Your task to perform on an android device: Go to calendar. Show me events next week Image 0: 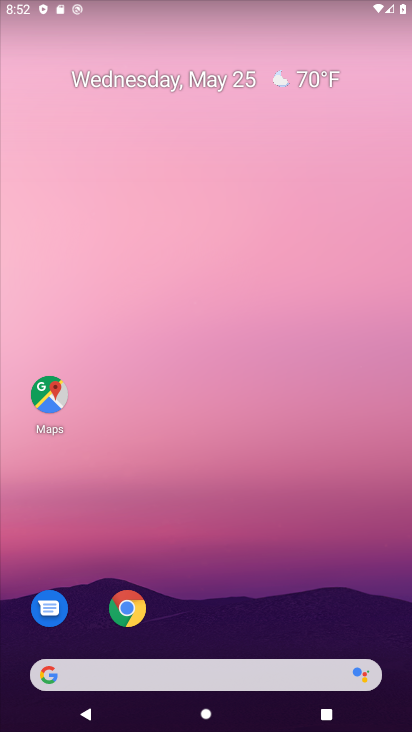
Step 0: click (133, 83)
Your task to perform on an android device: Go to calendar. Show me events next week Image 1: 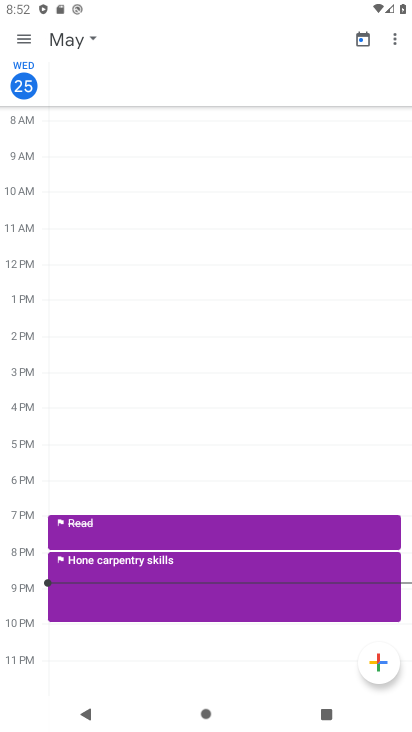
Step 1: click (20, 49)
Your task to perform on an android device: Go to calendar. Show me events next week Image 2: 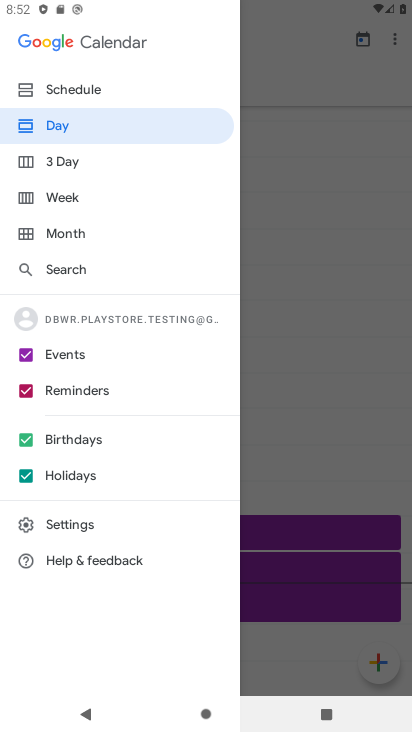
Step 2: click (55, 200)
Your task to perform on an android device: Go to calendar. Show me events next week Image 3: 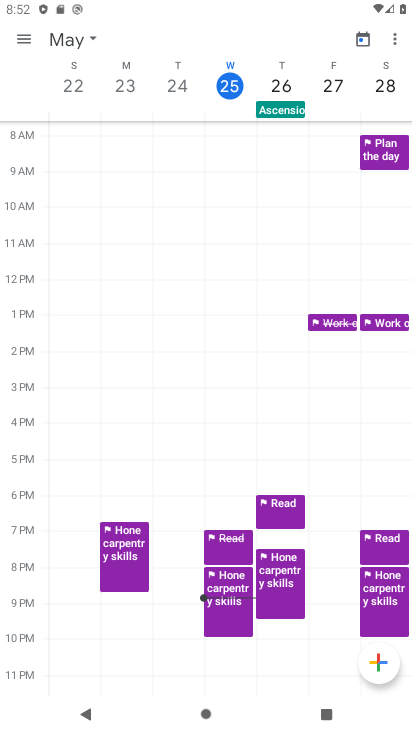
Step 3: click (91, 41)
Your task to perform on an android device: Go to calendar. Show me events next week Image 4: 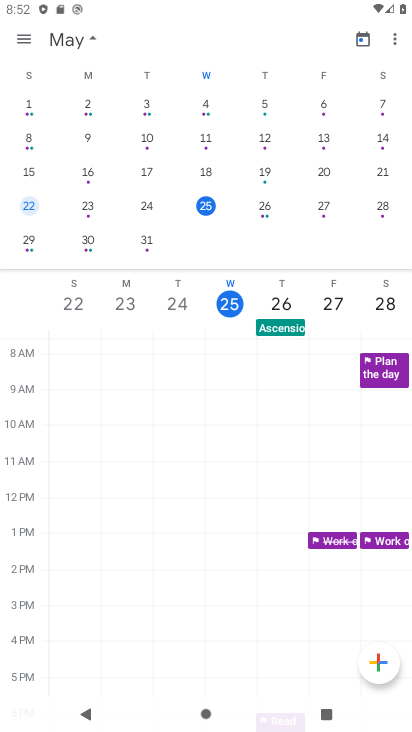
Step 4: click (31, 246)
Your task to perform on an android device: Go to calendar. Show me events next week Image 5: 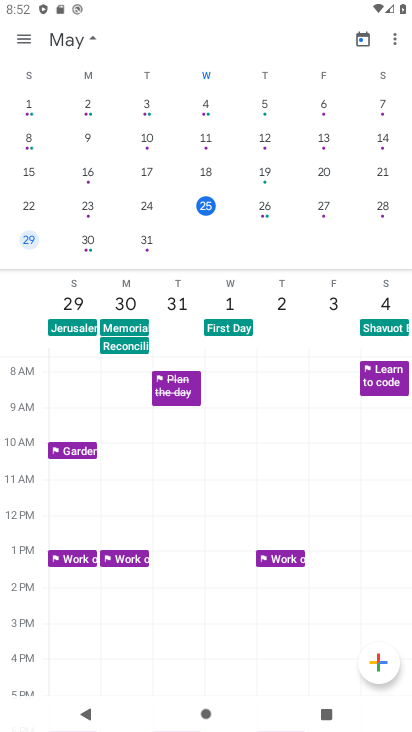
Step 5: task complete